Your task to perform on an android device: set default search engine in the chrome app Image 0: 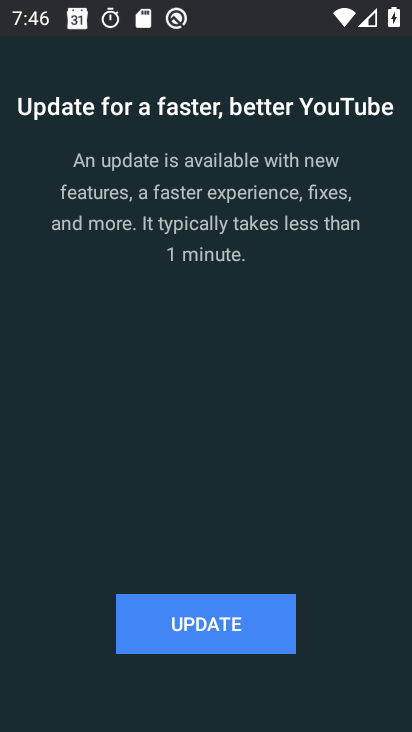
Step 0: press home button
Your task to perform on an android device: set default search engine in the chrome app Image 1: 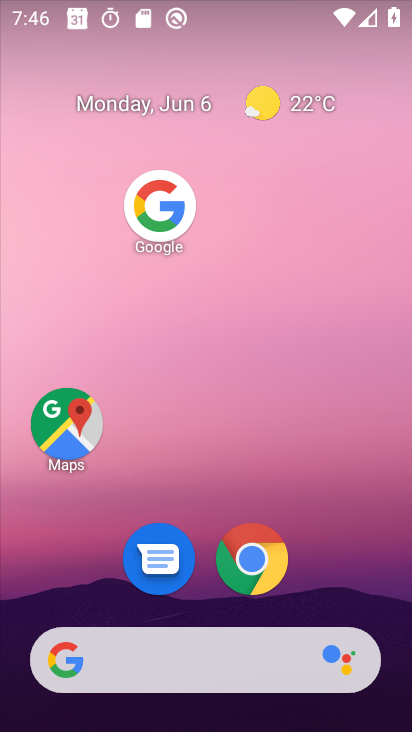
Step 1: drag from (274, 577) to (249, 283)
Your task to perform on an android device: set default search engine in the chrome app Image 2: 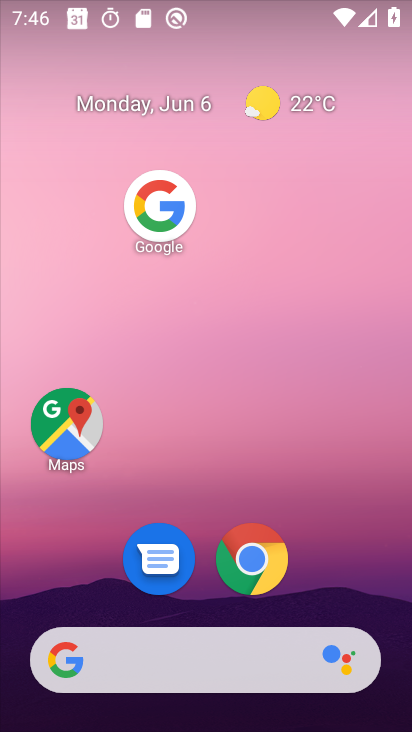
Step 2: drag from (299, 522) to (306, 284)
Your task to perform on an android device: set default search engine in the chrome app Image 3: 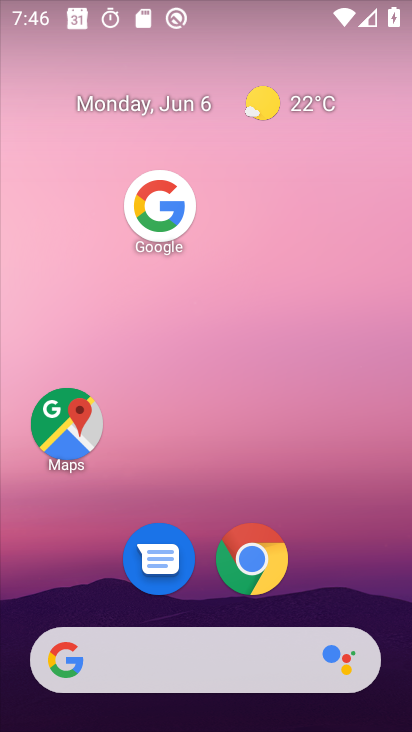
Step 3: drag from (216, 558) to (221, 259)
Your task to perform on an android device: set default search engine in the chrome app Image 4: 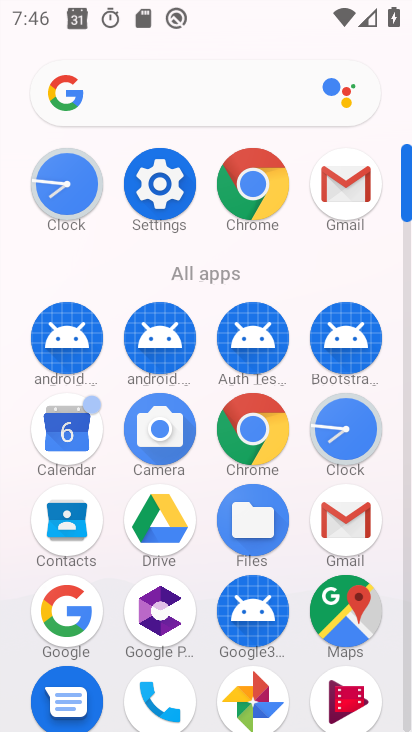
Step 4: click (255, 177)
Your task to perform on an android device: set default search engine in the chrome app Image 5: 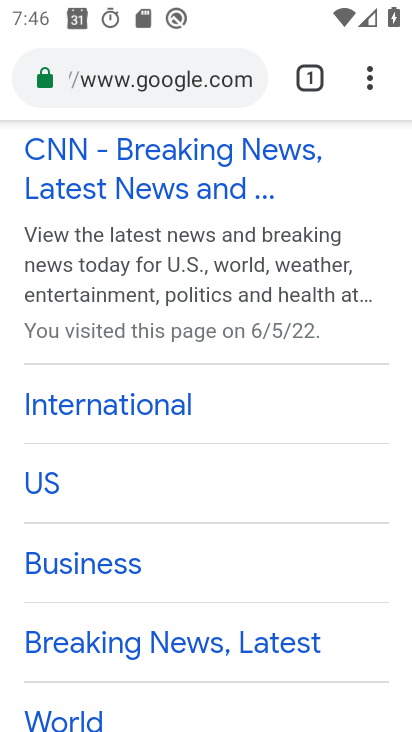
Step 5: click (376, 82)
Your task to perform on an android device: set default search engine in the chrome app Image 6: 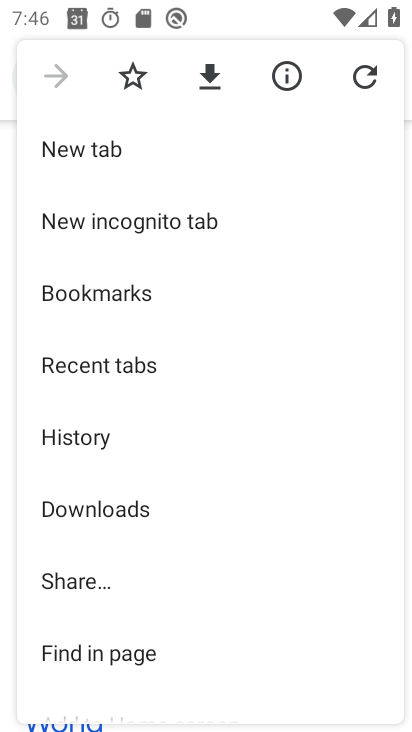
Step 6: drag from (93, 722) to (228, 390)
Your task to perform on an android device: set default search engine in the chrome app Image 7: 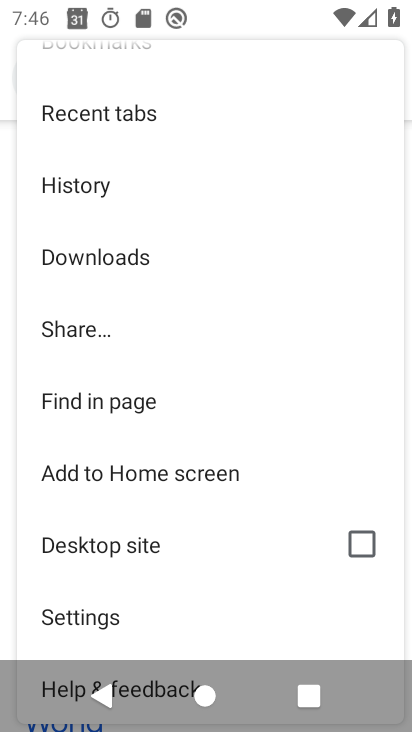
Step 7: click (108, 625)
Your task to perform on an android device: set default search engine in the chrome app Image 8: 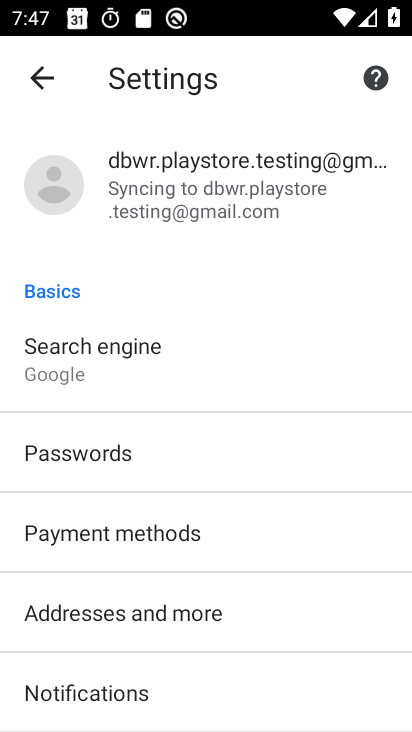
Step 8: click (137, 360)
Your task to perform on an android device: set default search engine in the chrome app Image 9: 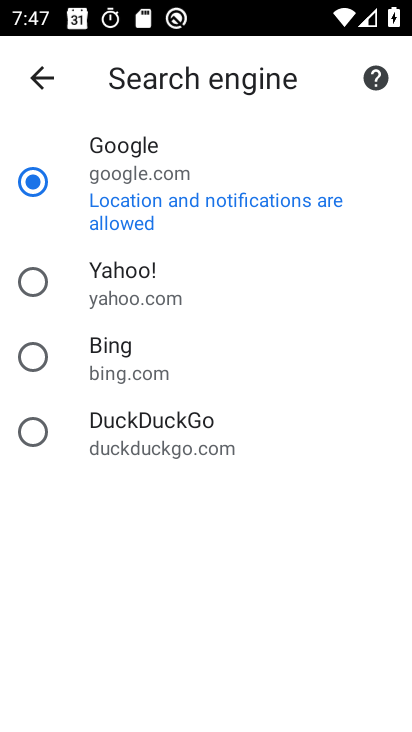
Step 9: task complete